Your task to perform on an android device: clear all cookies in the chrome app Image 0: 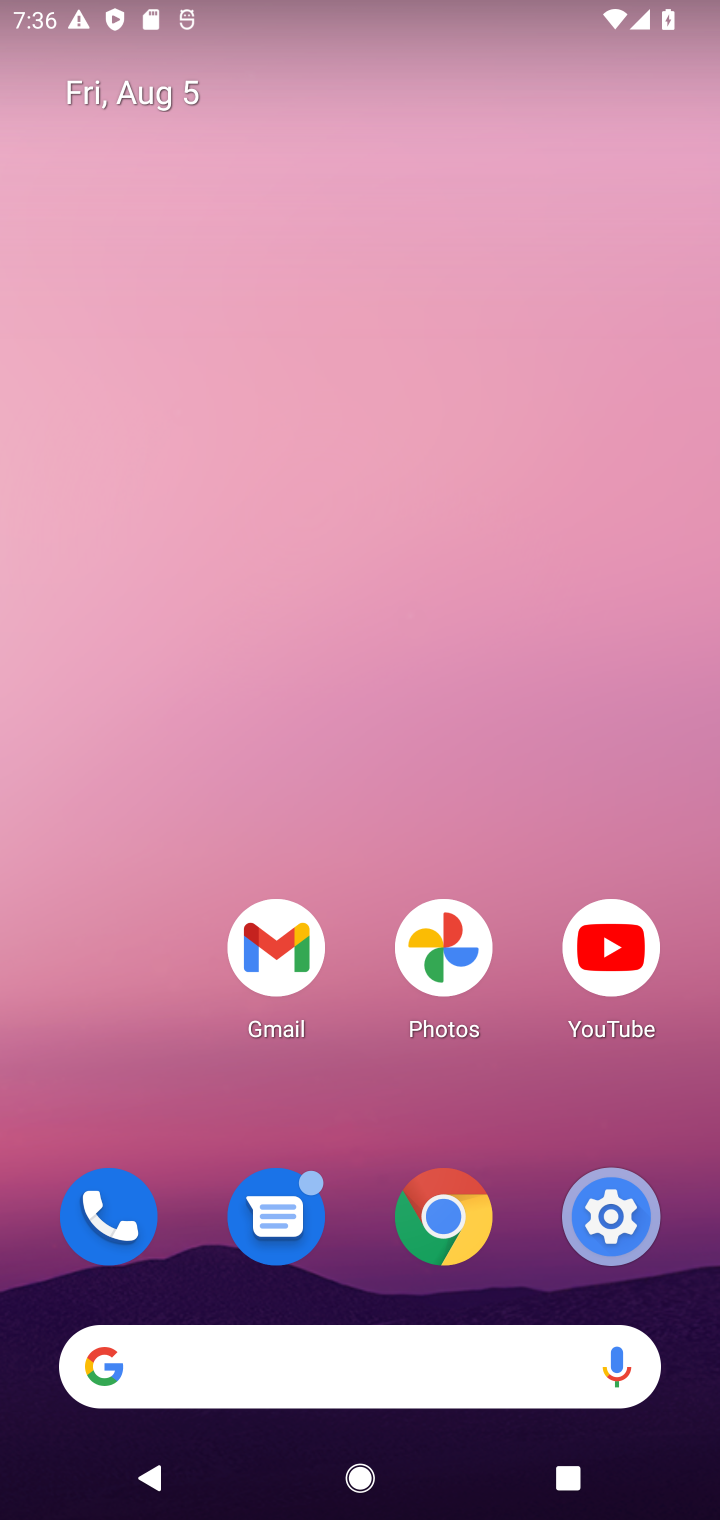
Step 0: click (419, 1231)
Your task to perform on an android device: clear all cookies in the chrome app Image 1: 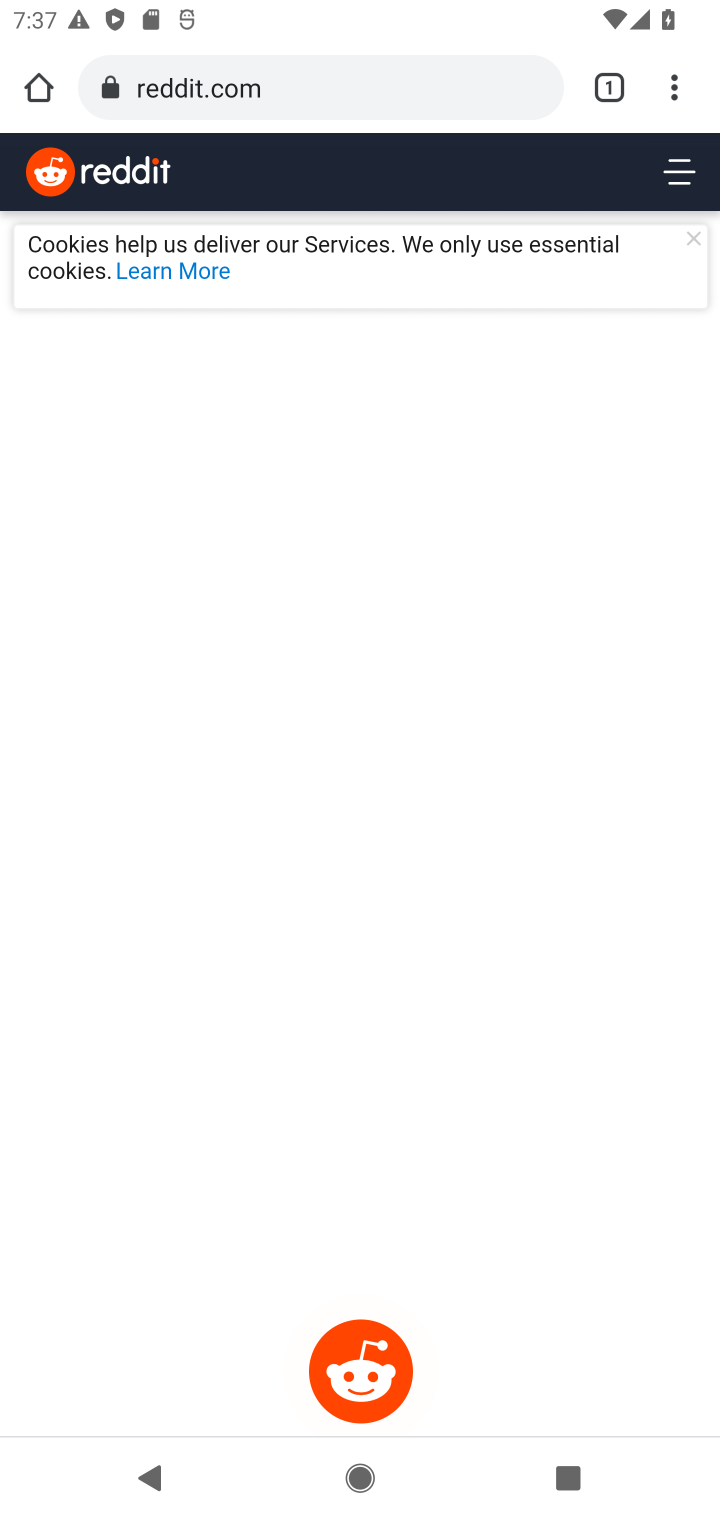
Step 1: click (682, 84)
Your task to perform on an android device: clear all cookies in the chrome app Image 2: 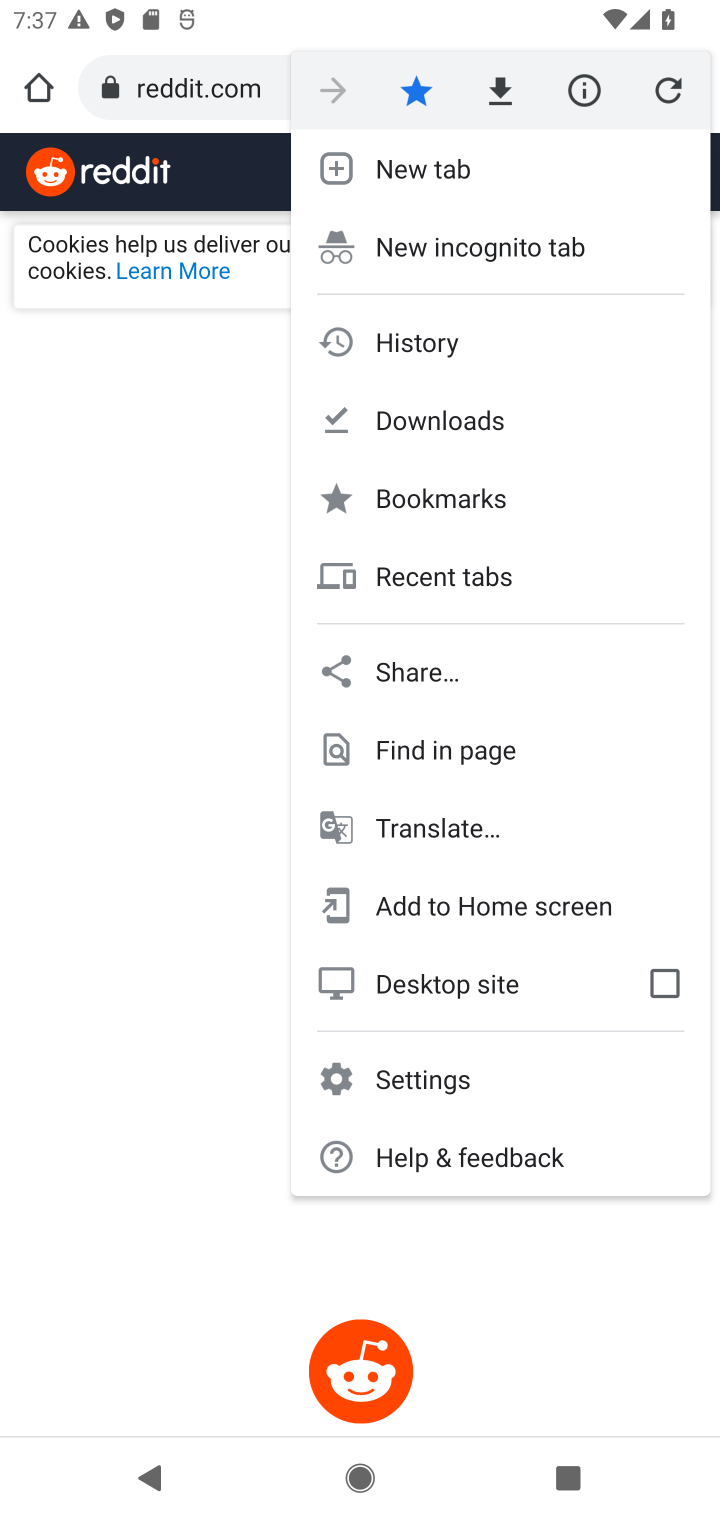
Step 2: click (395, 369)
Your task to perform on an android device: clear all cookies in the chrome app Image 3: 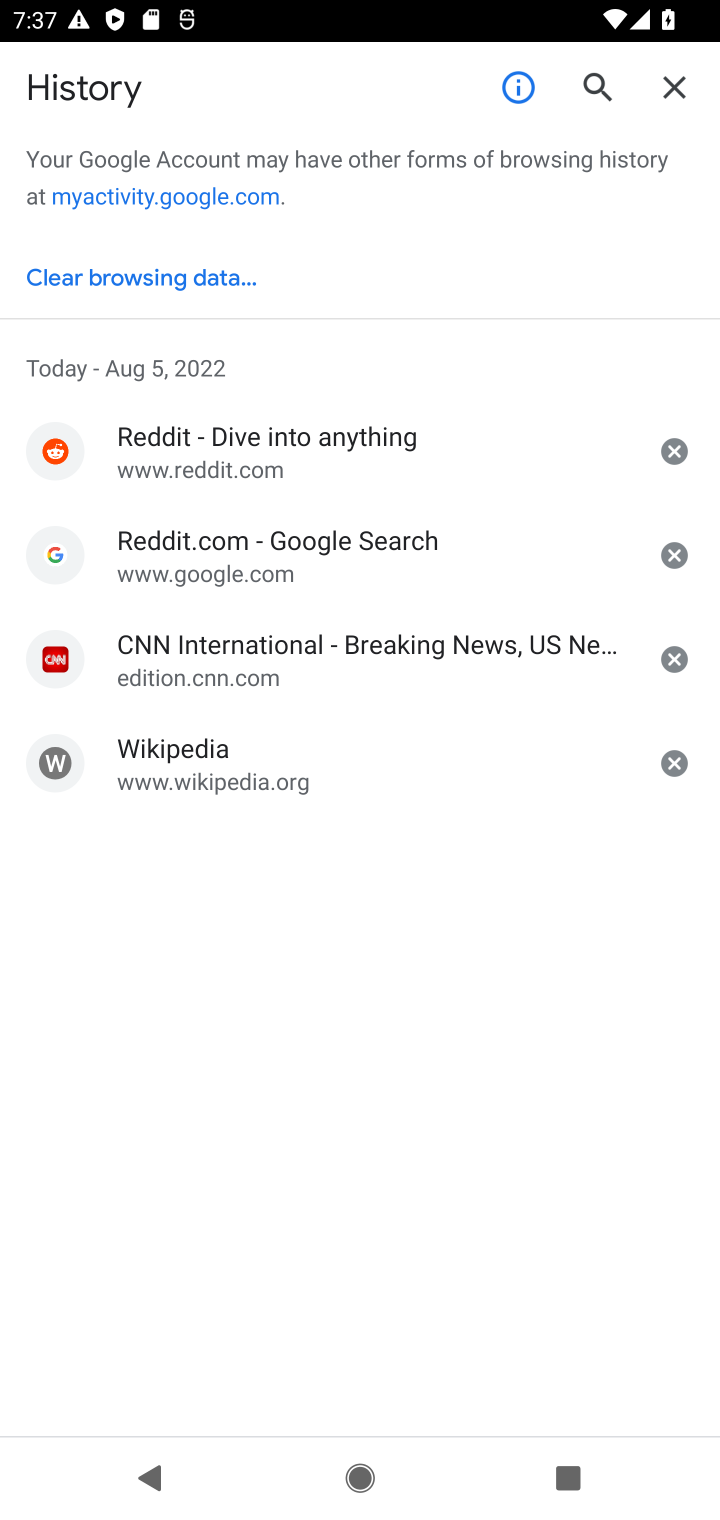
Step 3: click (99, 265)
Your task to perform on an android device: clear all cookies in the chrome app Image 4: 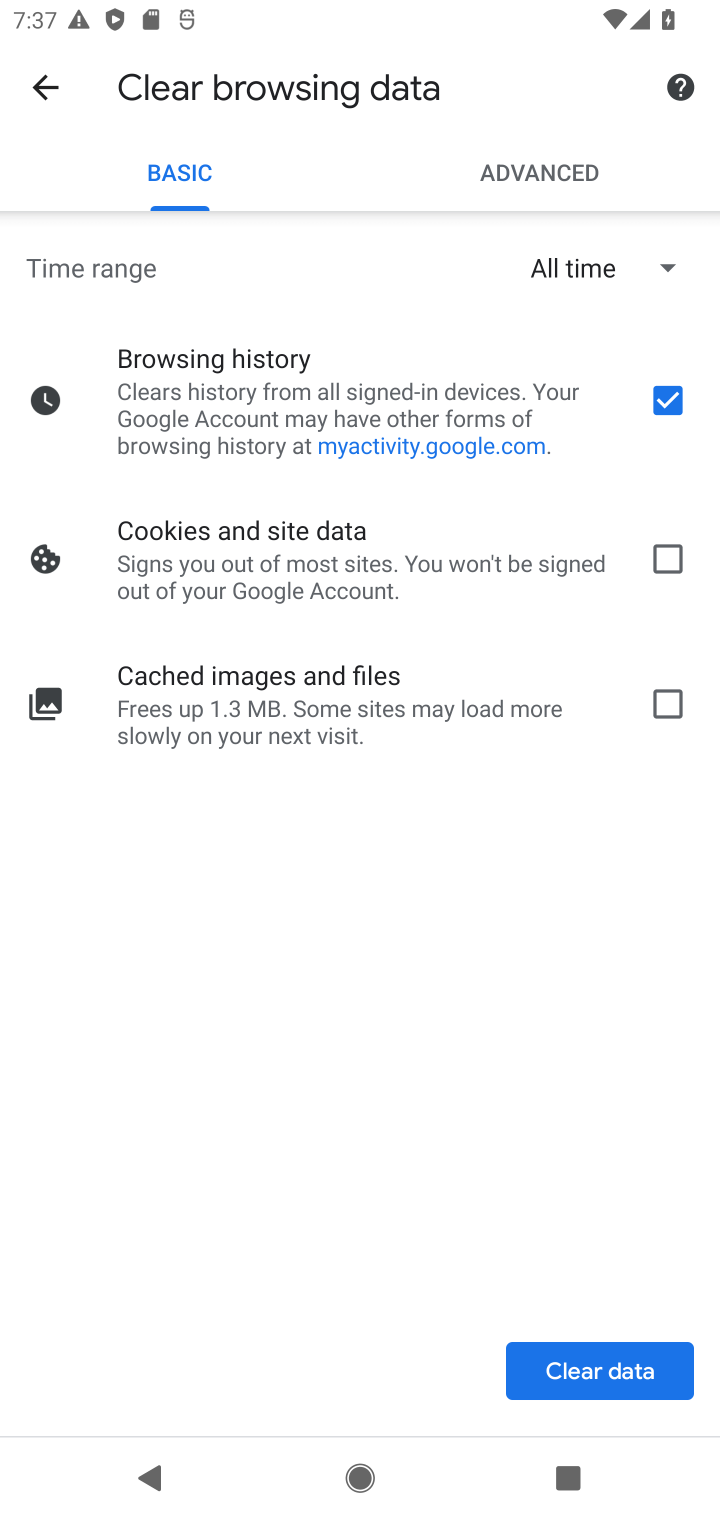
Step 4: click (653, 421)
Your task to perform on an android device: clear all cookies in the chrome app Image 5: 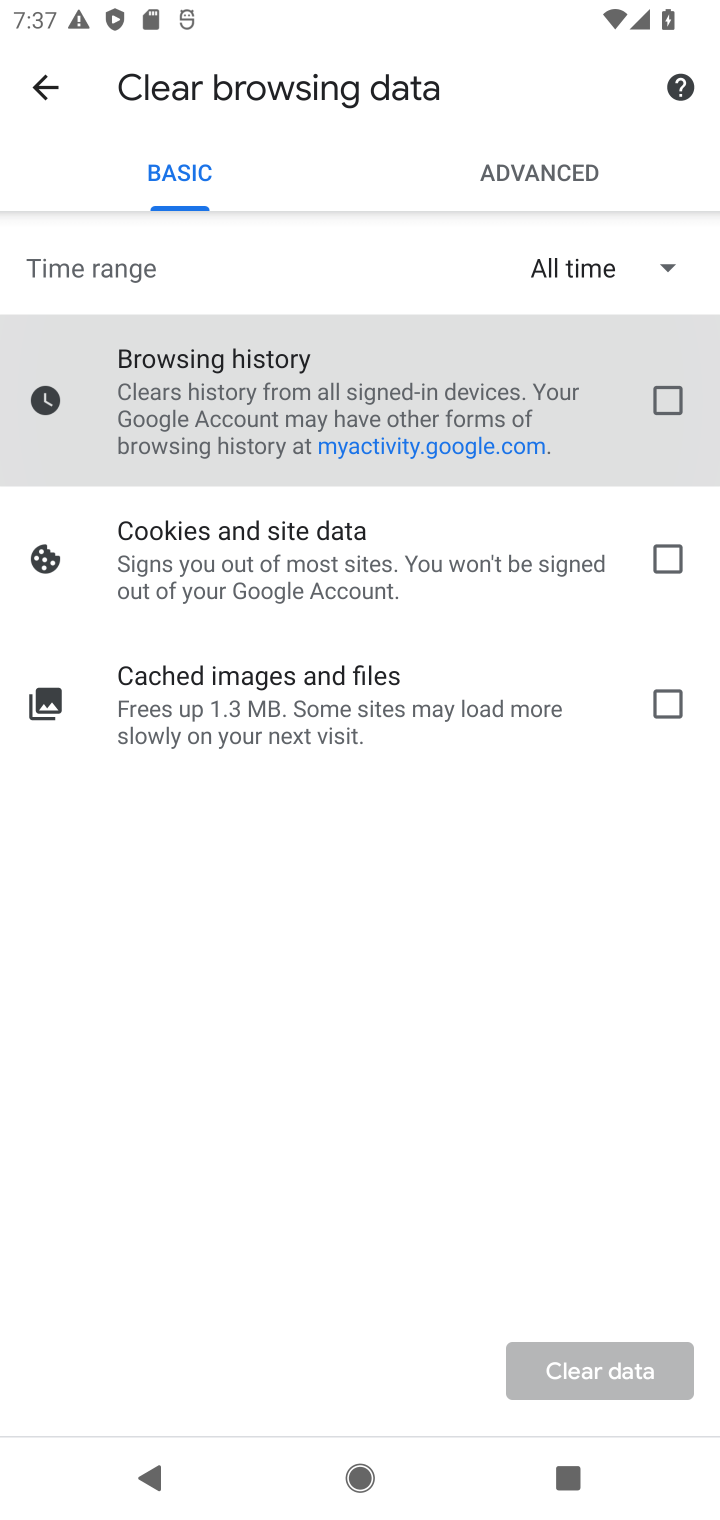
Step 5: click (683, 560)
Your task to perform on an android device: clear all cookies in the chrome app Image 6: 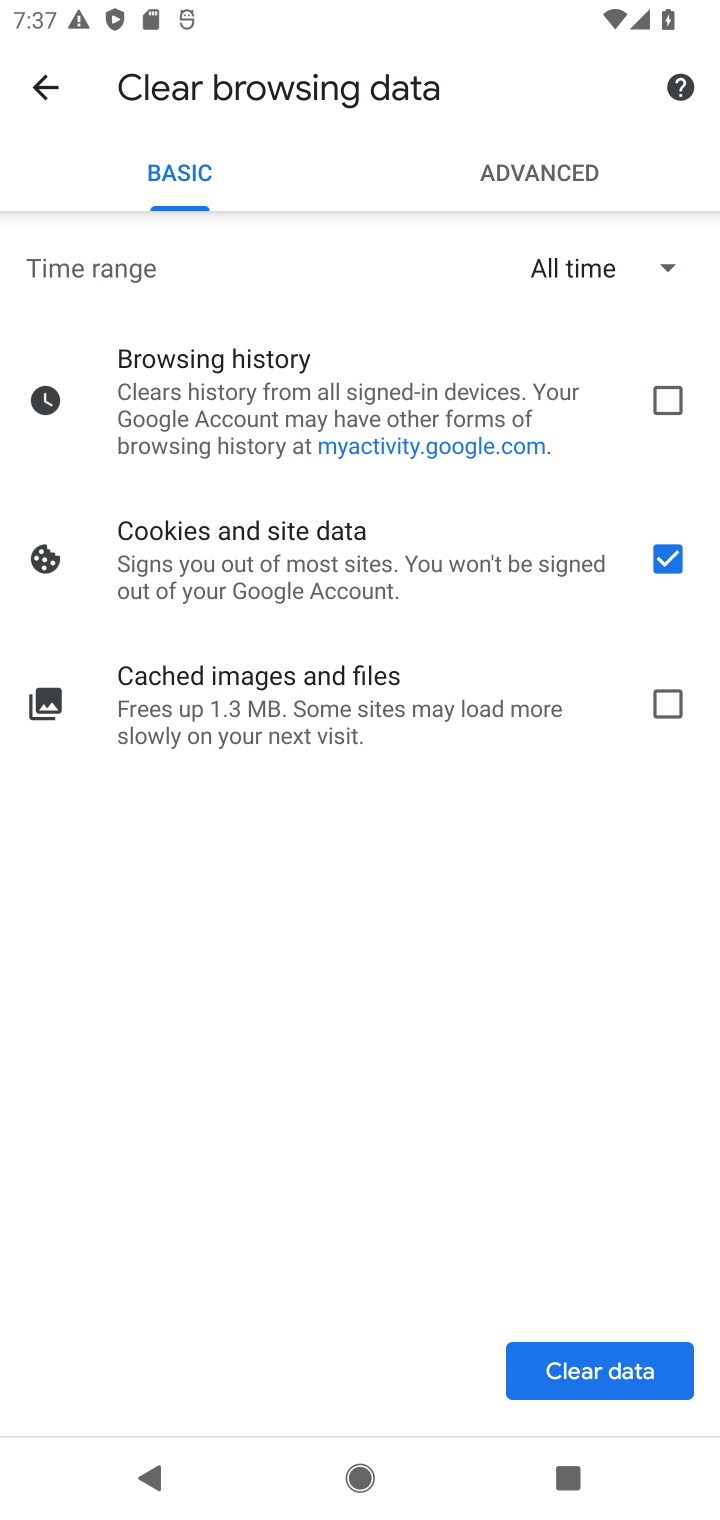
Step 6: click (627, 1385)
Your task to perform on an android device: clear all cookies in the chrome app Image 7: 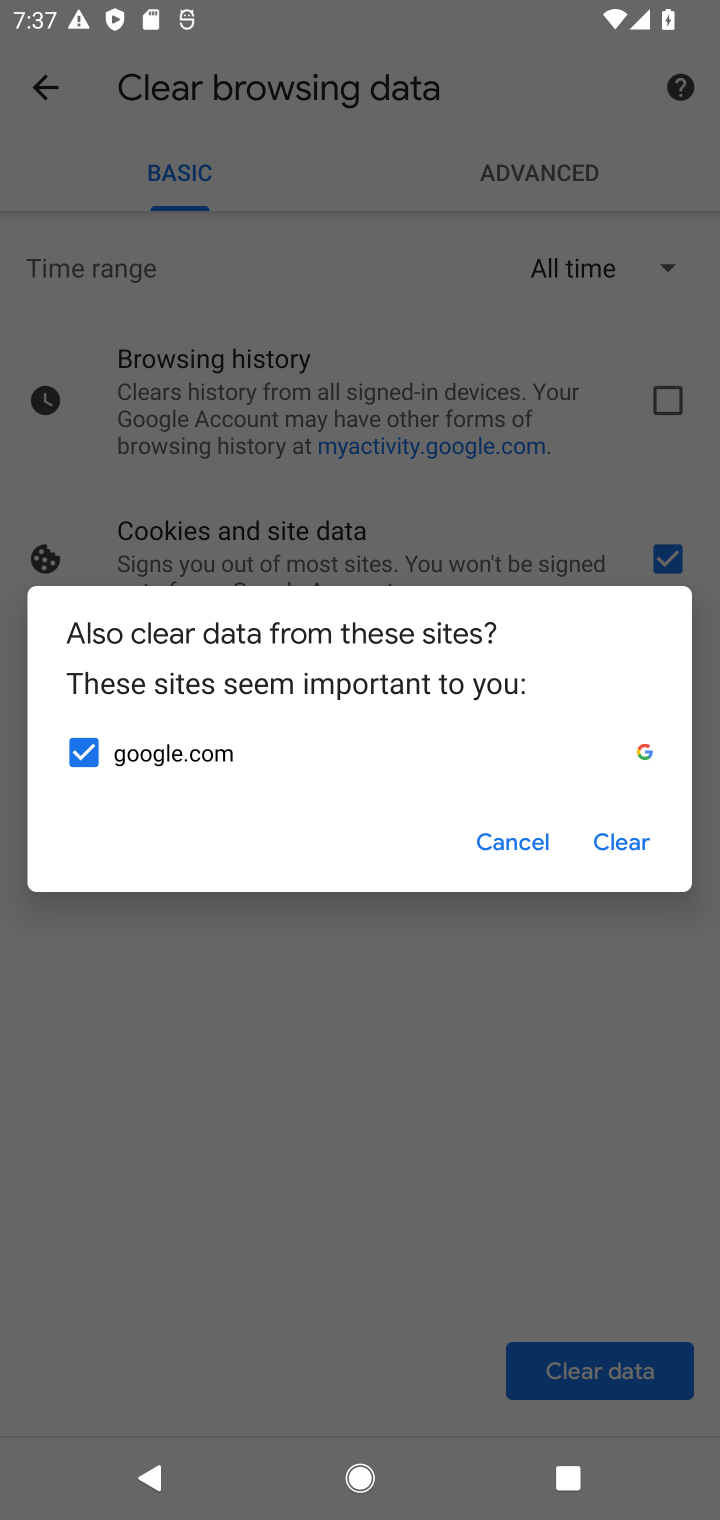
Step 7: click (625, 834)
Your task to perform on an android device: clear all cookies in the chrome app Image 8: 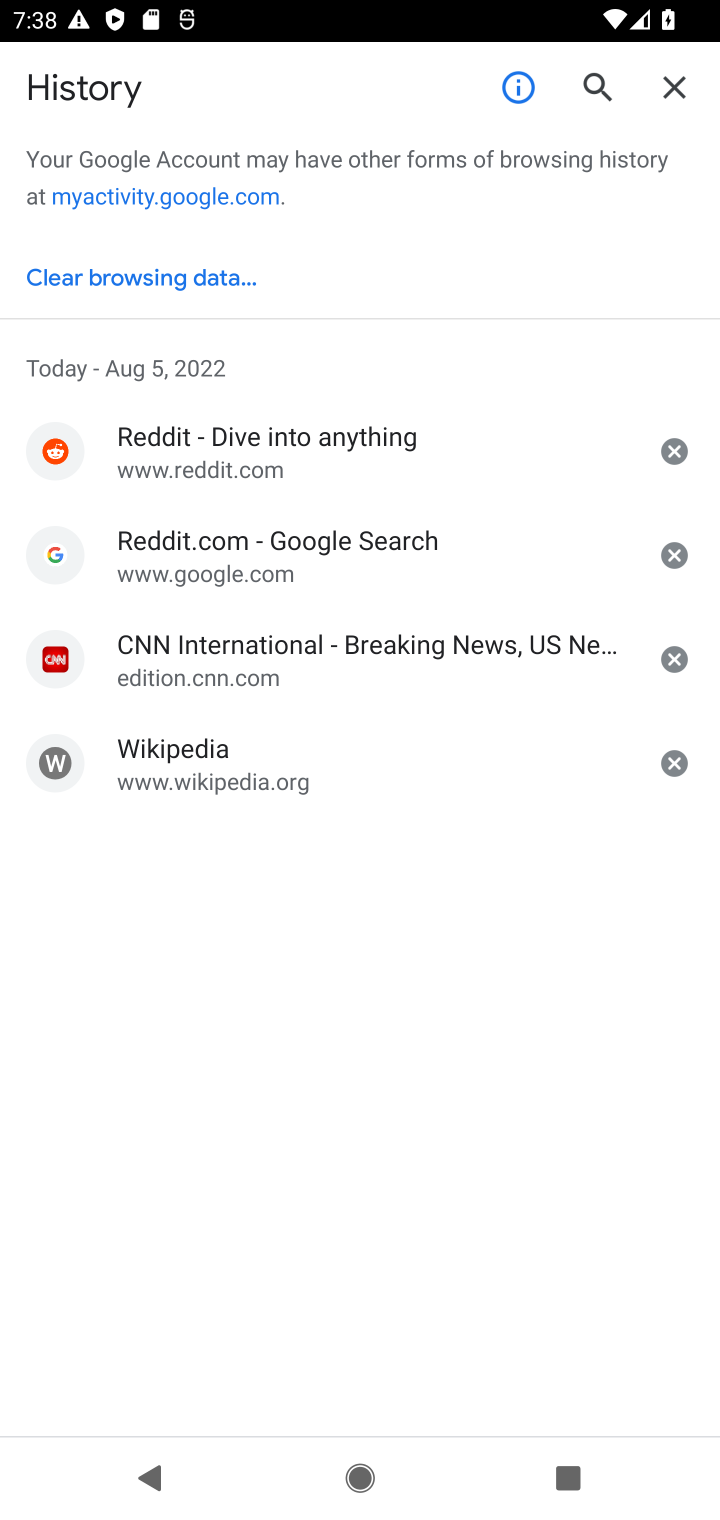
Step 8: task complete